Your task to perform on an android device: Check the weather Image 0: 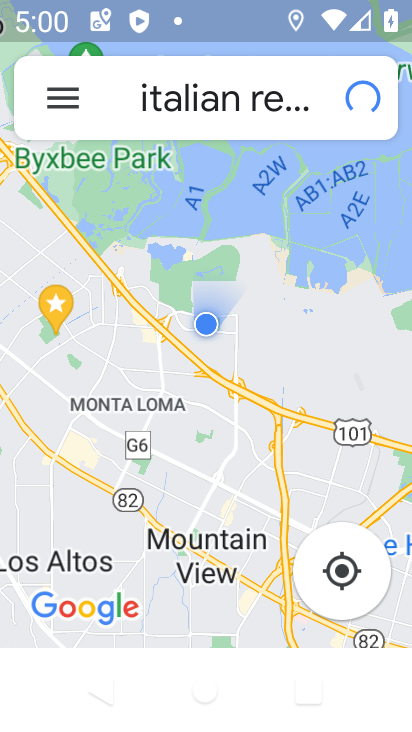
Step 0: press home button
Your task to perform on an android device: Check the weather Image 1: 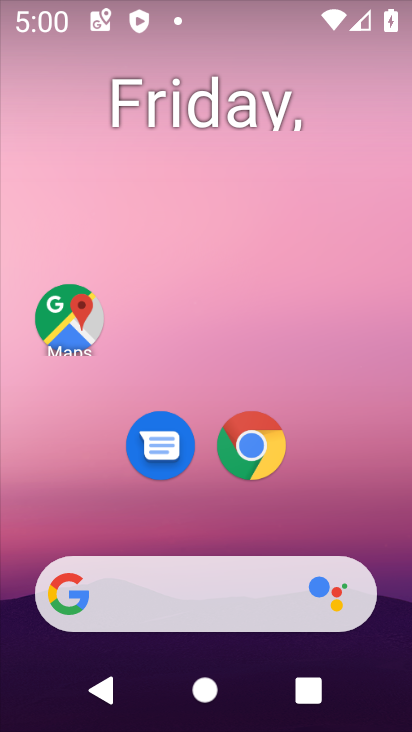
Step 1: click (215, 566)
Your task to perform on an android device: Check the weather Image 2: 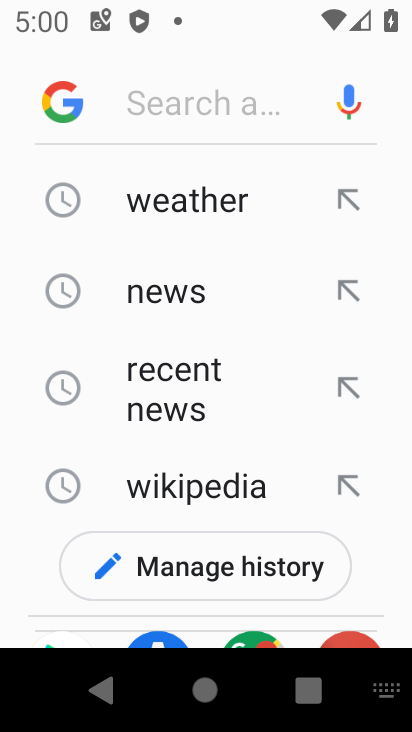
Step 2: click (229, 177)
Your task to perform on an android device: Check the weather Image 3: 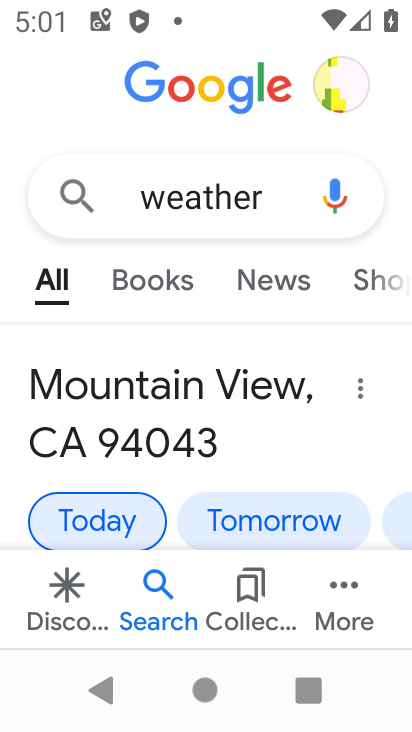
Step 3: task complete